Your task to perform on an android device: toggle notifications settings in the gmail app Image 0: 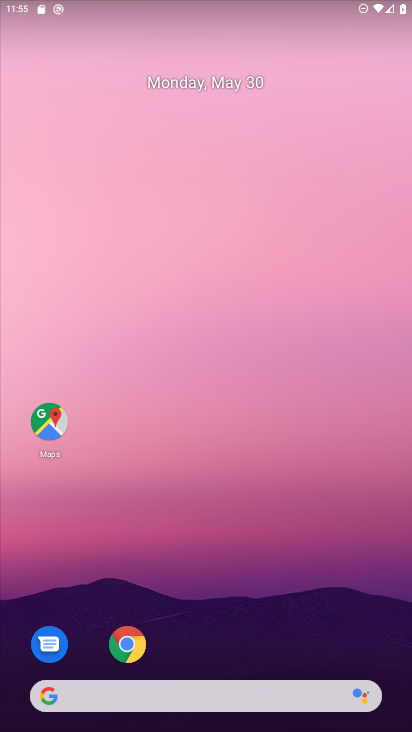
Step 0: drag from (198, 634) to (211, 219)
Your task to perform on an android device: toggle notifications settings in the gmail app Image 1: 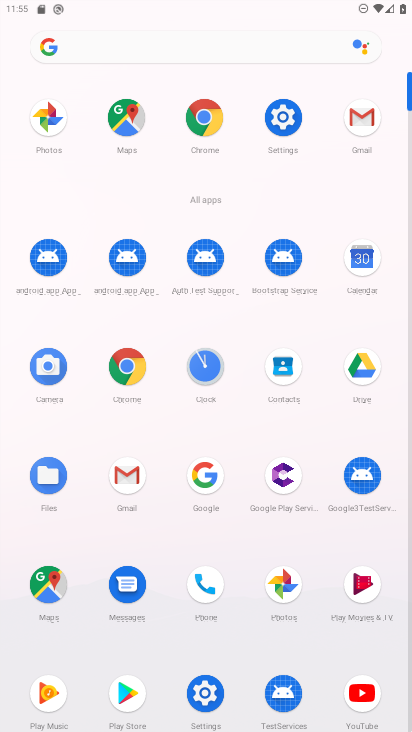
Step 1: click (121, 460)
Your task to perform on an android device: toggle notifications settings in the gmail app Image 2: 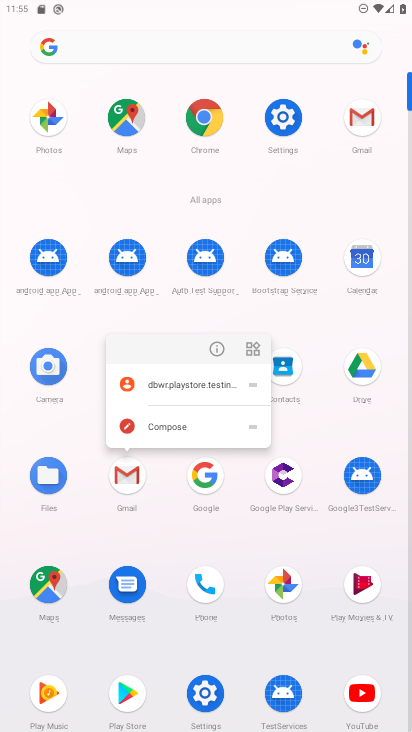
Step 2: click (218, 340)
Your task to perform on an android device: toggle notifications settings in the gmail app Image 3: 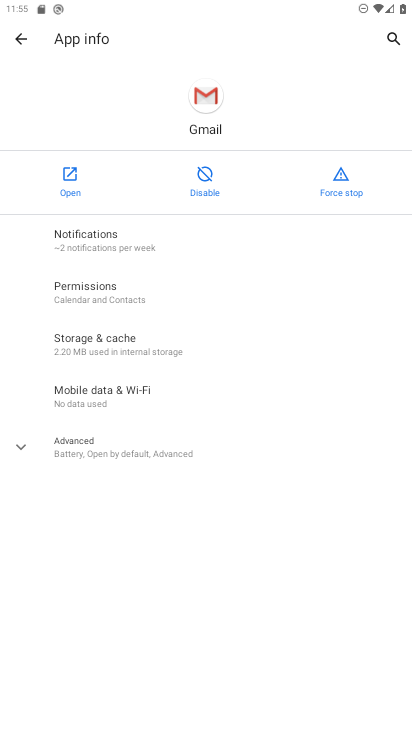
Step 3: click (66, 171)
Your task to perform on an android device: toggle notifications settings in the gmail app Image 4: 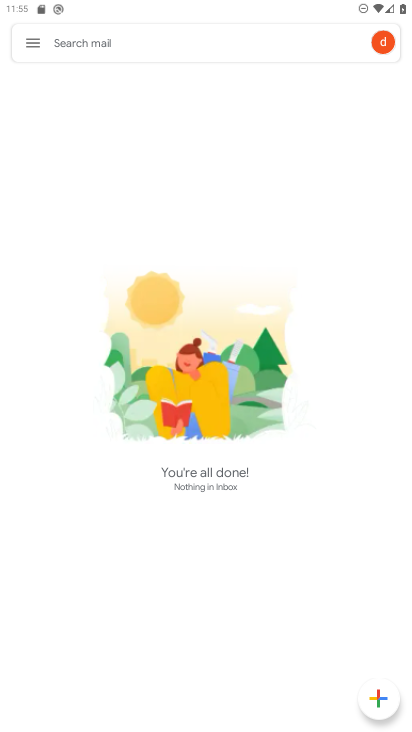
Step 4: click (25, 33)
Your task to perform on an android device: toggle notifications settings in the gmail app Image 5: 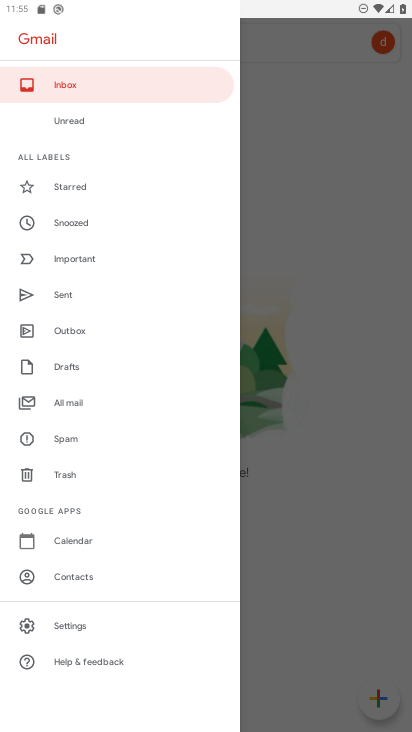
Step 5: click (85, 619)
Your task to perform on an android device: toggle notifications settings in the gmail app Image 6: 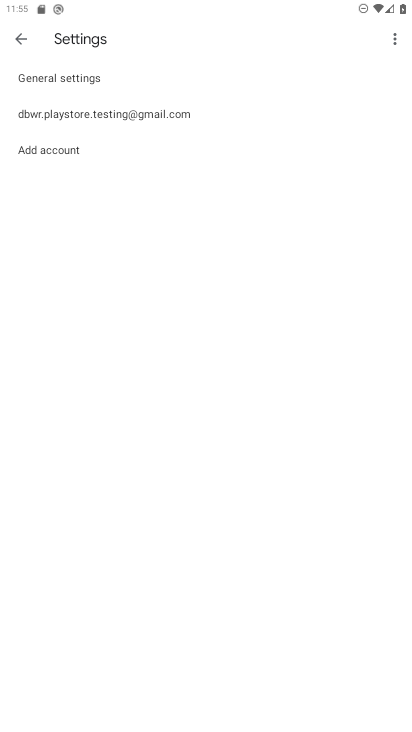
Step 6: click (165, 105)
Your task to perform on an android device: toggle notifications settings in the gmail app Image 7: 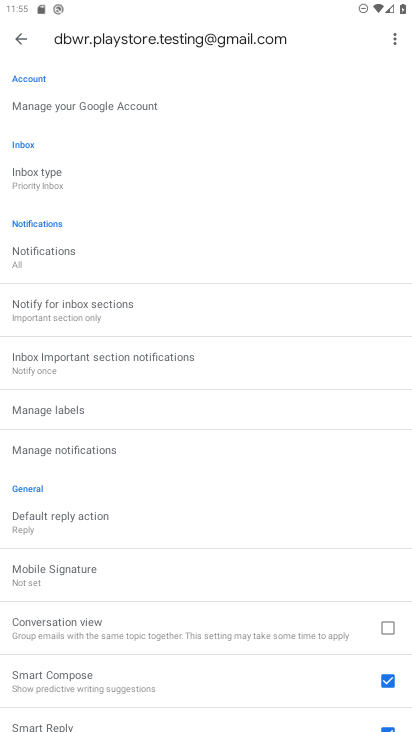
Step 7: click (99, 449)
Your task to perform on an android device: toggle notifications settings in the gmail app Image 8: 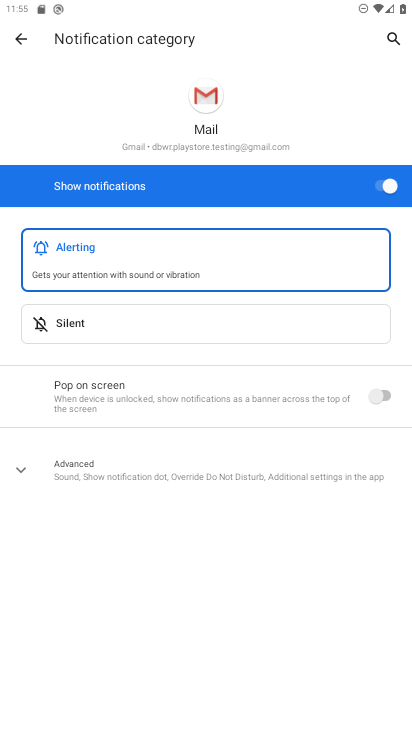
Step 8: click (384, 181)
Your task to perform on an android device: toggle notifications settings in the gmail app Image 9: 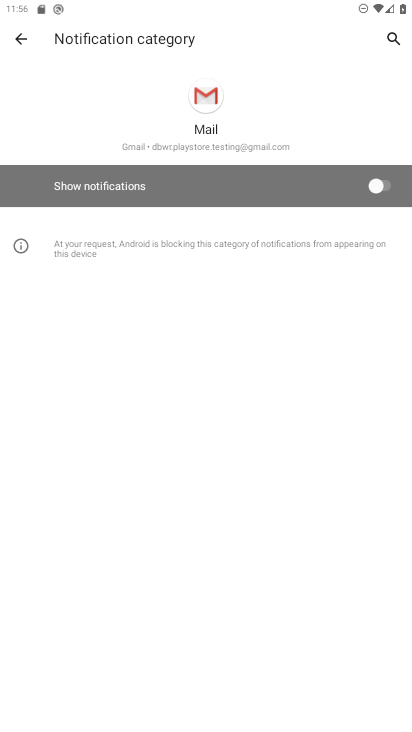
Step 9: task complete